Your task to perform on an android device: Go to internet settings Image 0: 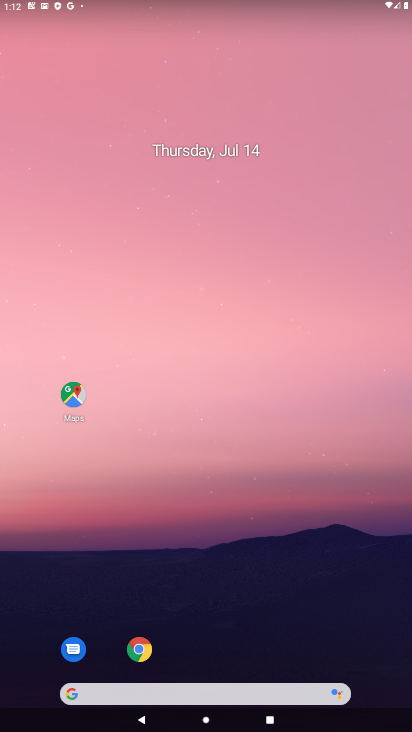
Step 0: click (290, 42)
Your task to perform on an android device: Go to internet settings Image 1: 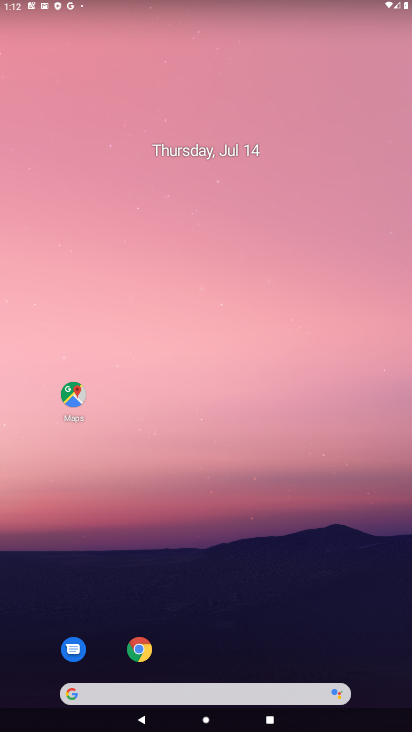
Step 1: drag from (378, 693) to (206, 19)
Your task to perform on an android device: Go to internet settings Image 2: 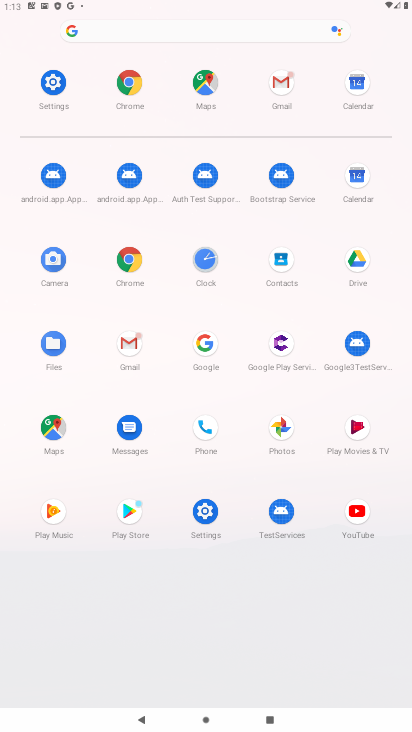
Step 2: click (207, 513)
Your task to perform on an android device: Go to internet settings Image 3: 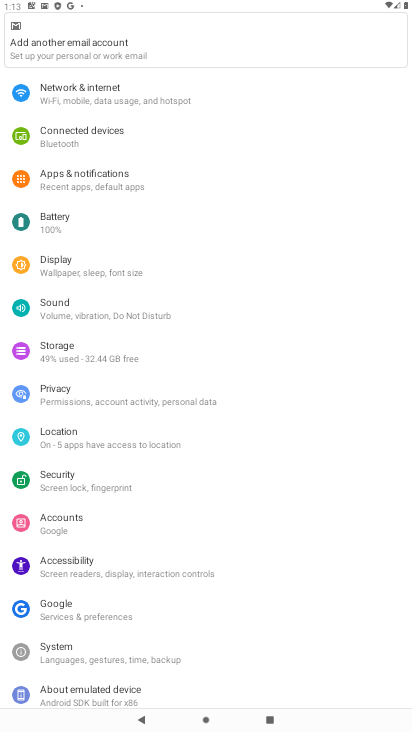
Step 3: click (120, 109)
Your task to perform on an android device: Go to internet settings Image 4: 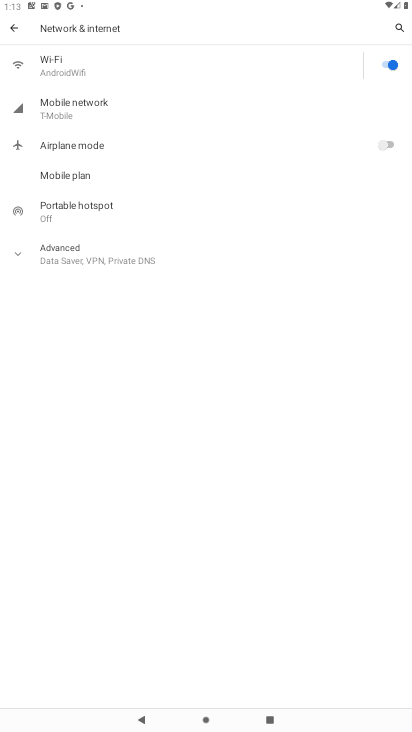
Step 4: task complete